Your task to perform on an android device: Search for a custom-made wallet on Etsy Image 0: 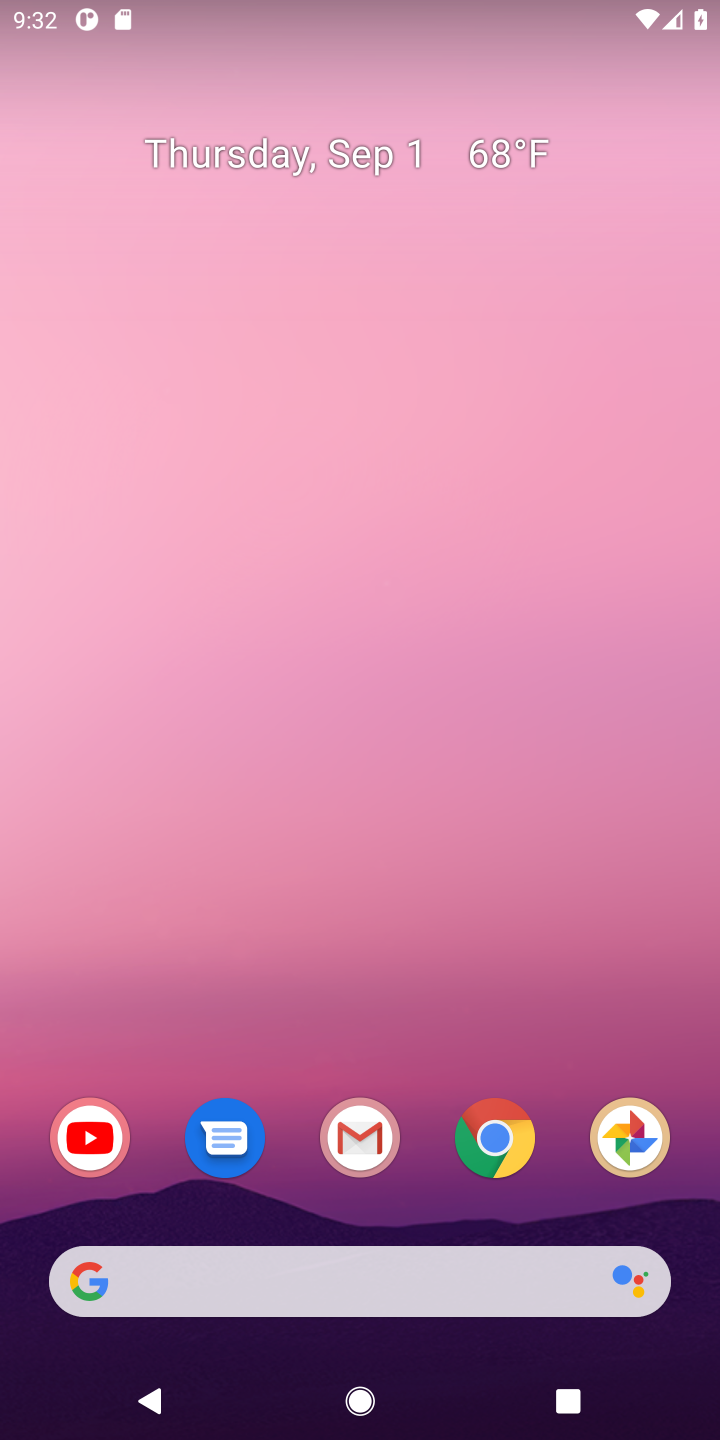
Step 0: click (290, 1253)
Your task to perform on an android device: Search for a custom-made wallet on Etsy Image 1: 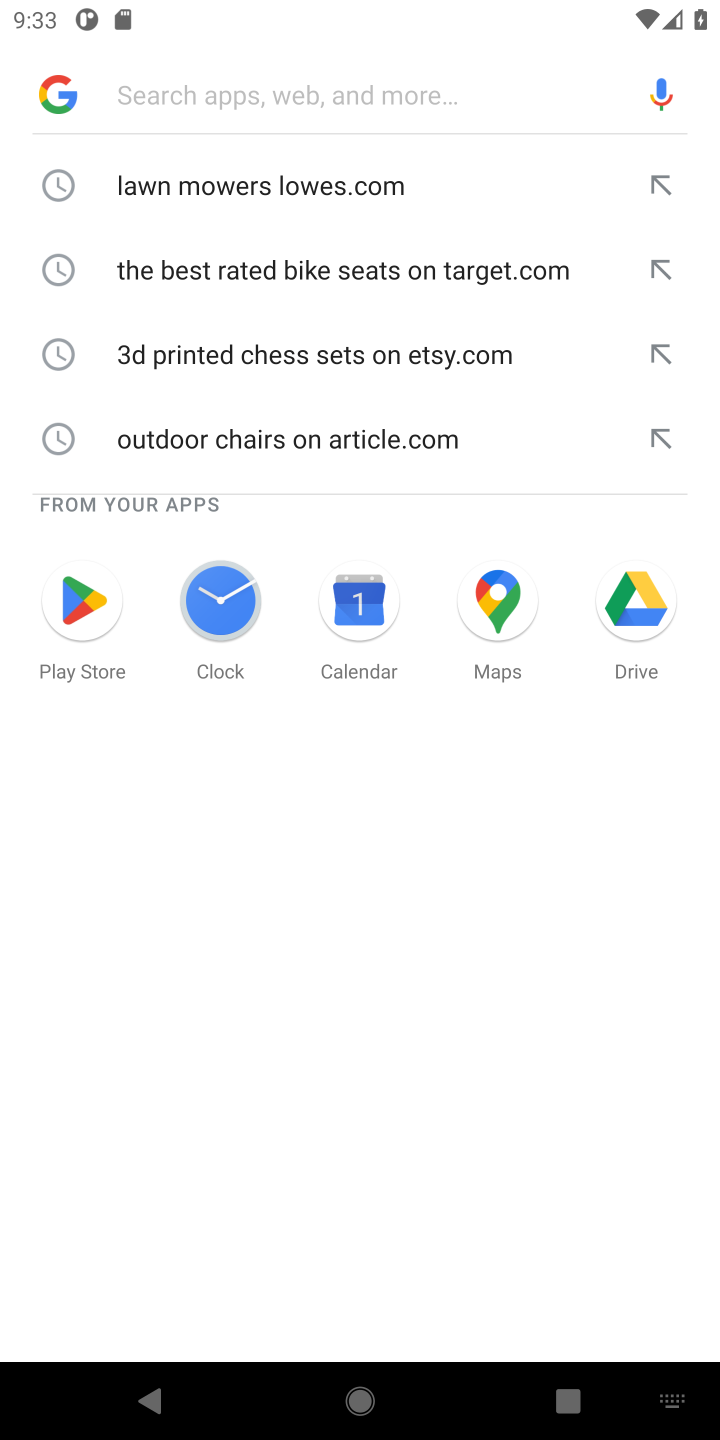
Step 1: type " custom-made wallet on Etsy"
Your task to perform on an android device: Search for a custom-made wallet on Etsy Image 2: 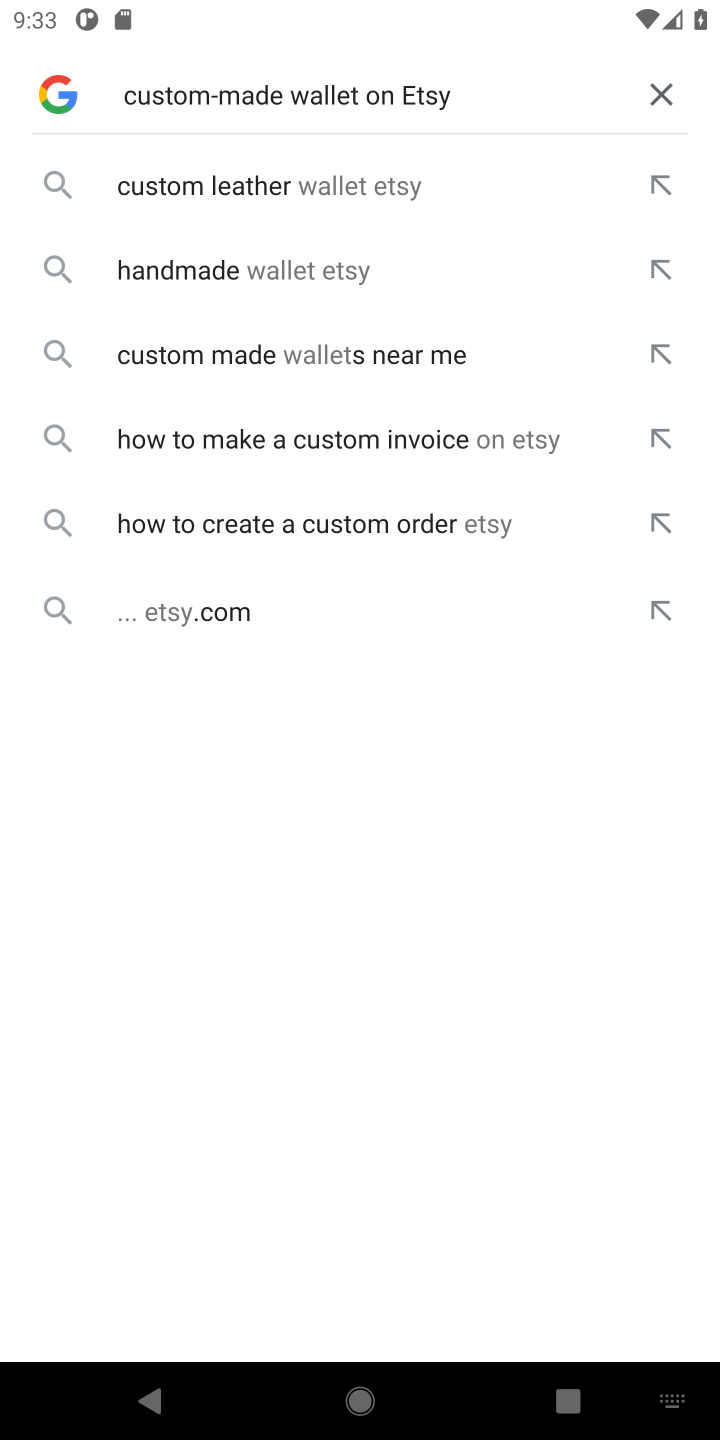
Step 2: click (271, 197)
Your task to perform on an android device: Search for a custom-made wallet on Etsy Image 3: 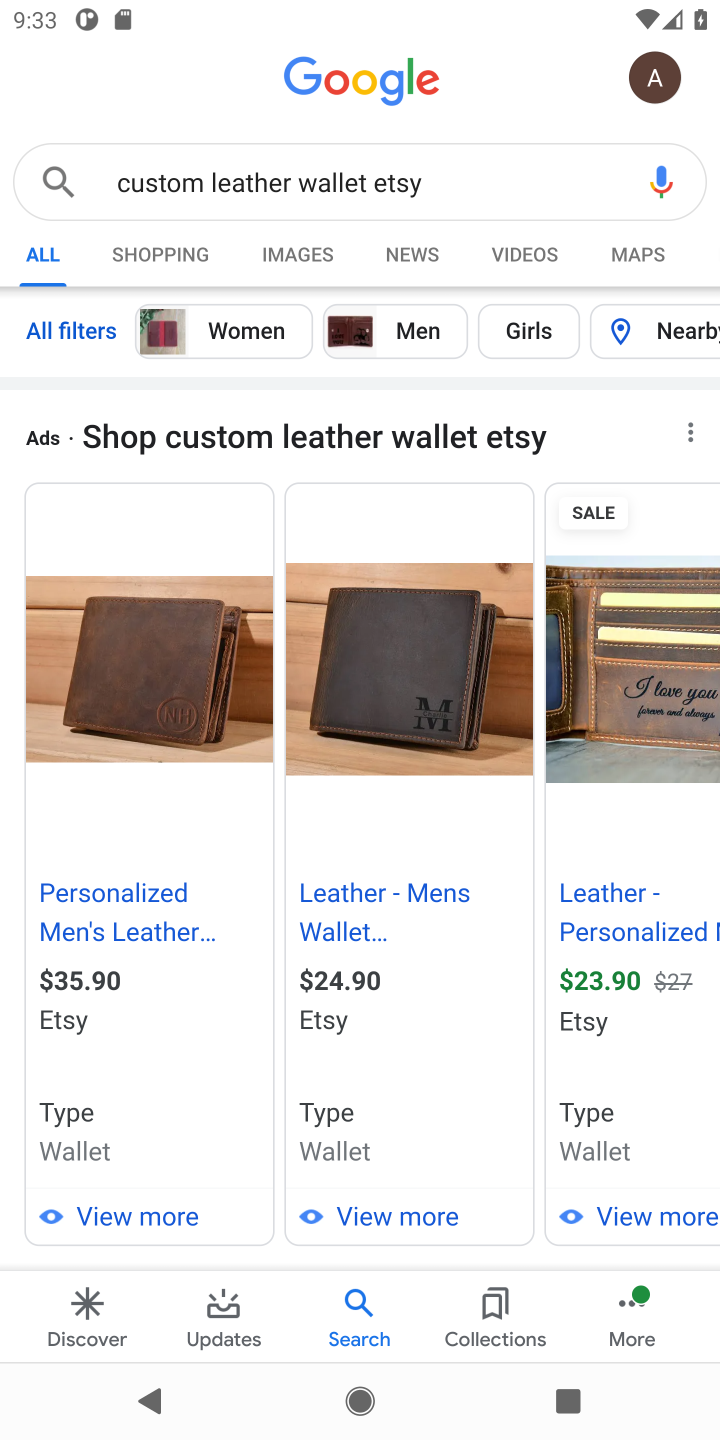
Step 3: task complete